Your task to perform on an android device: Open calendar and show me the fourth week of next month Image 0: 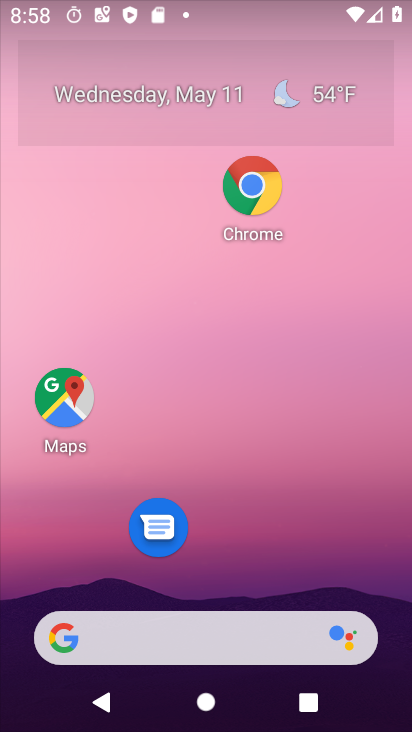
Step 0: drag from (254, 562) to (208, 166)
Your task to perform on an android device: Open calendar and show me the fourth week of next month Image 1: 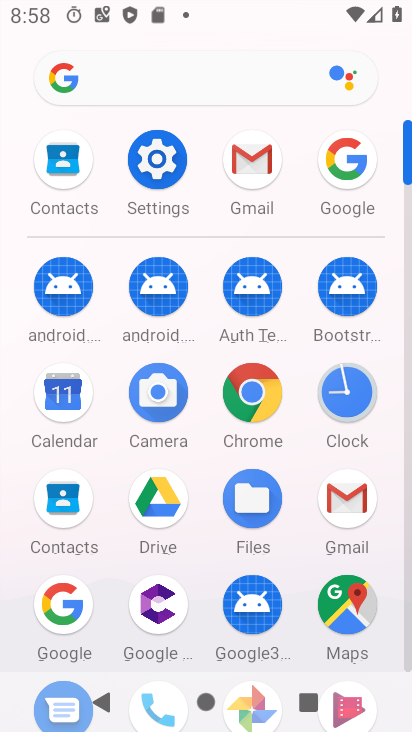
Step 1: click (62, 395)
Your task to perform on an android device: Open calendar and show me the fourth week of next month Image 2: 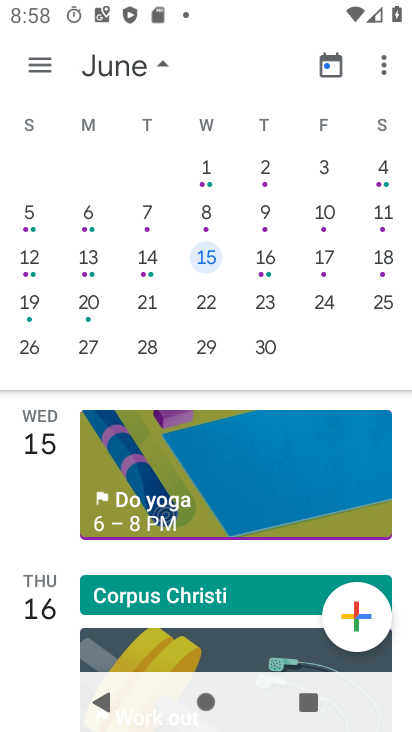
Step 2: click (208, 297)
Your task to perform on an android device: Open calendar and show me the fourth week of next month Image 3: 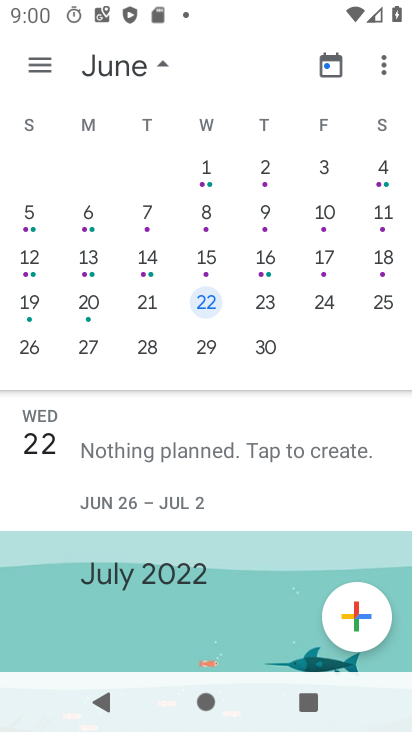
Step 3: task complete